Your task to perform on an android device: Open the calendar and show me this week's events? Image 0: 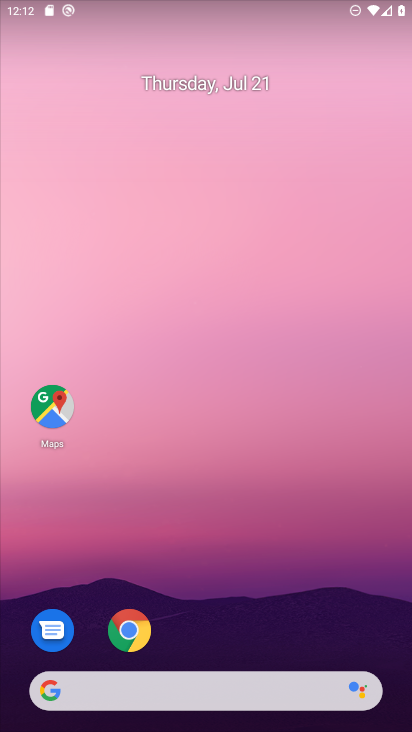
Step 0: drag from (209, 637) to (288, 30)
Your task to perform on an android device: Open the calendar and show me this week's events? Image 1: 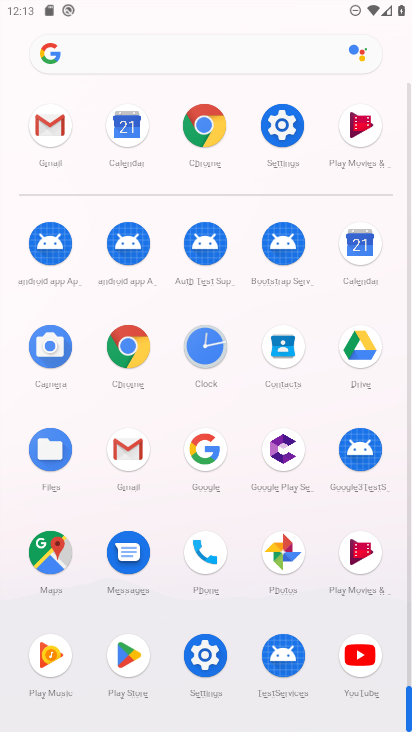
Step 1: click (359, 243)
Your task to perform on an android device: Open the calendar and show me this week's events? Image 2: 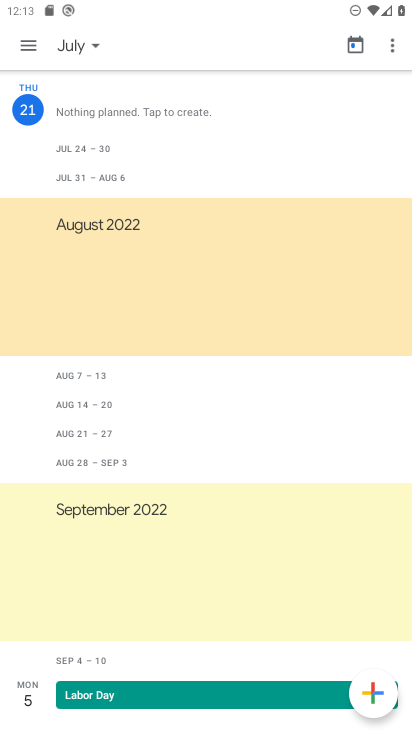
Step 2: click (80, 48)
Your task to perform on an android device: Open the calendar and show me this week's events? Image 3: 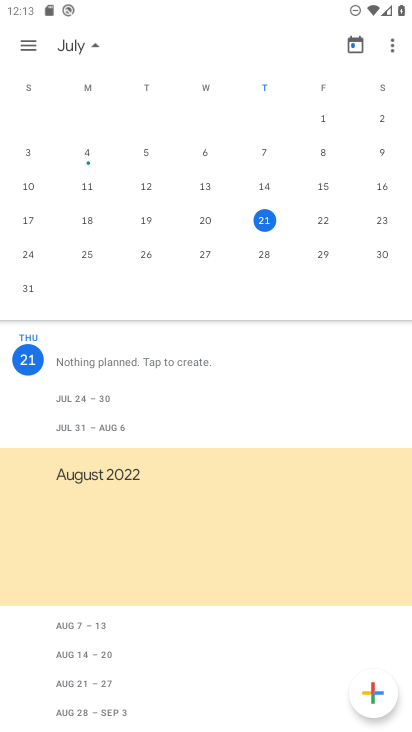
Step 3: click (382, 221)
Your task to perform on an android device: Open the calendar and show me this week's events? Image 4: 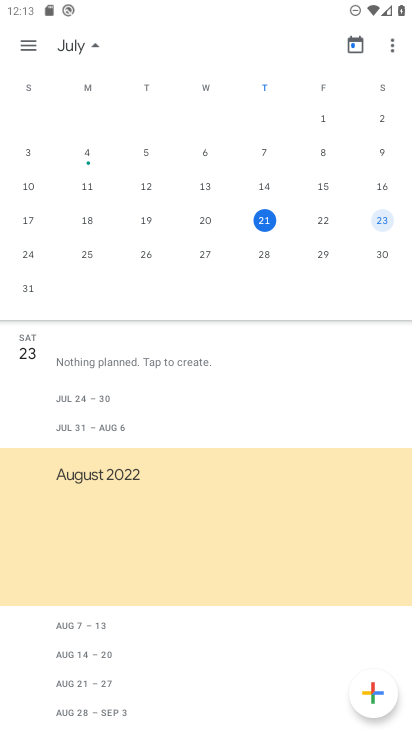
Step 4: click (380, 226)
Your task to perform on an android device: Open the calendar and show me this week's events? Image 5: 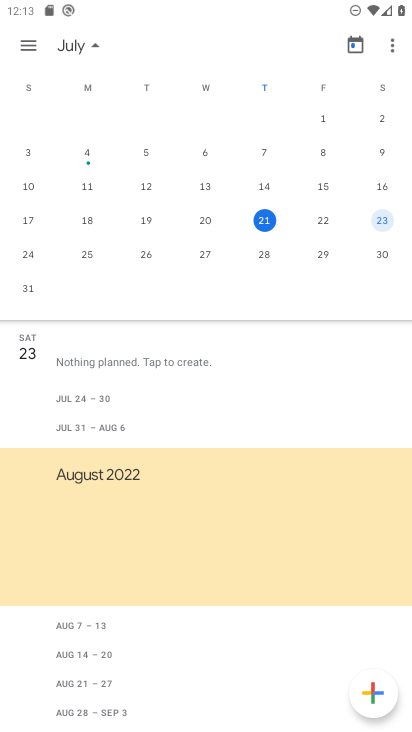
Step 5: drag from (210, 643) to (235, 390)
Your task to perform on an android device: Open the calendar and show me this week's events? Image 6: 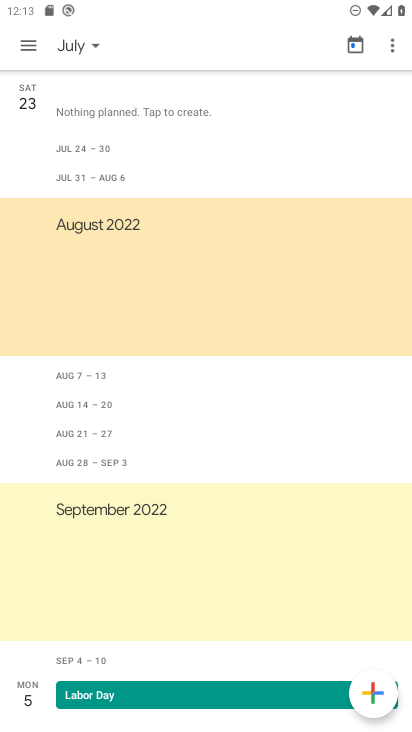
Step 6: click (86, 41)
Your task to perform on an android device: Open the calendar and show me this week's events? Image 7: 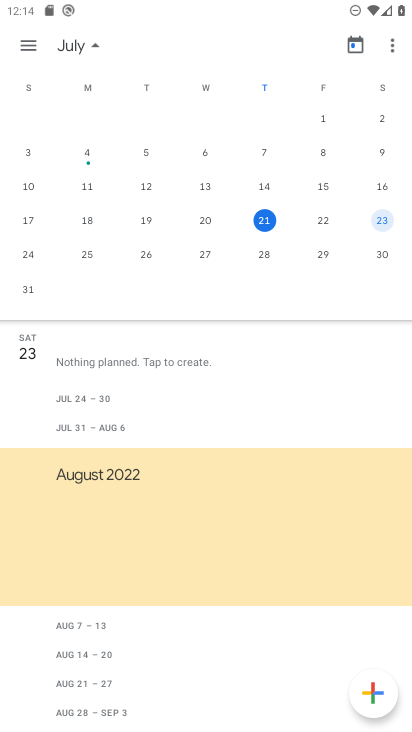
Step 7: task complete